Your task to perform on an android device: Open Yahoo.com Image 0: 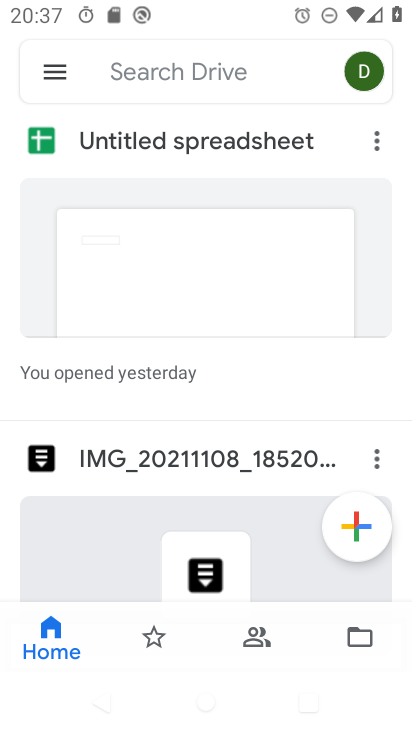
Step 0: press home button
Your task to perform on an android device: Open Yahoo.com Image 1: 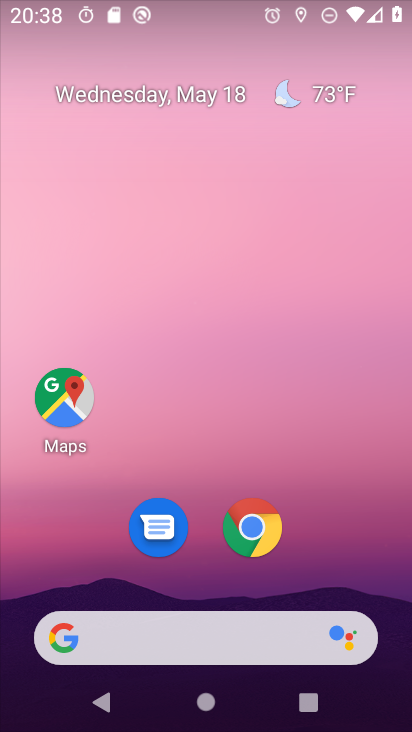
Step 1: click (251, 518)
Your task to perform on an android device: Open Yahoo.com Image 2: 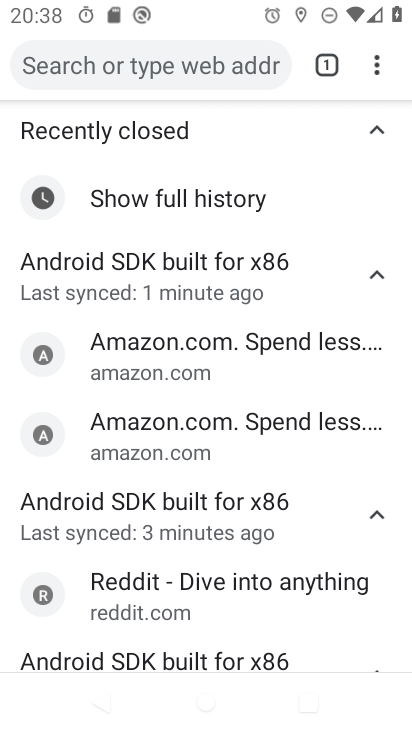
Step 2: click (259, 73)
Your task to perform on an android device: Open Yahoo.com Image 3: 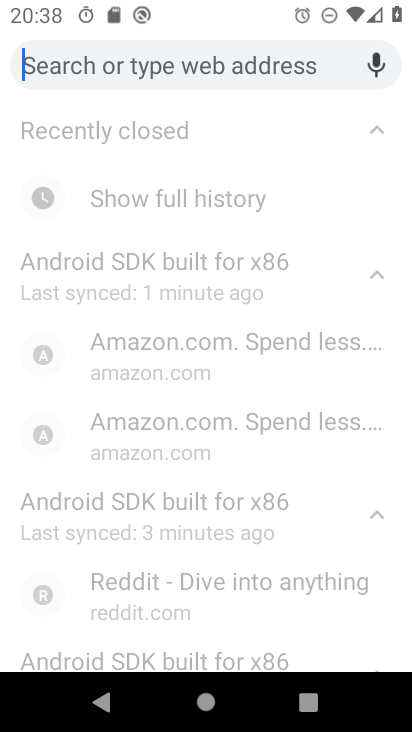
Step 3: type "Yahoo.com"
Your task to perform on an android device: Open Yahoo.com Image 4: 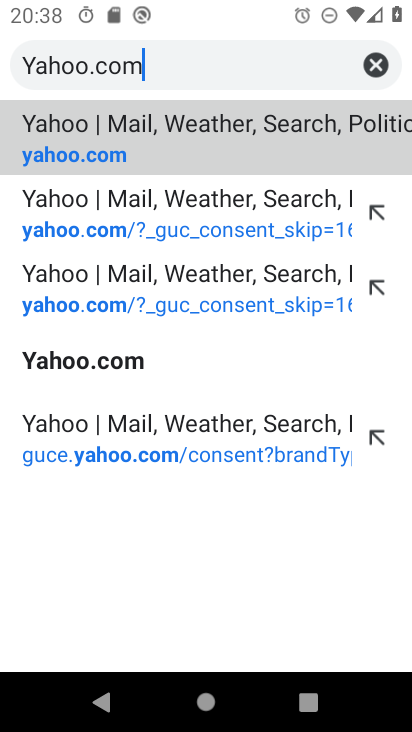
Step 4: click (115, 361)
Your task to perform on an android device: Open Yahoo.com Image 5: 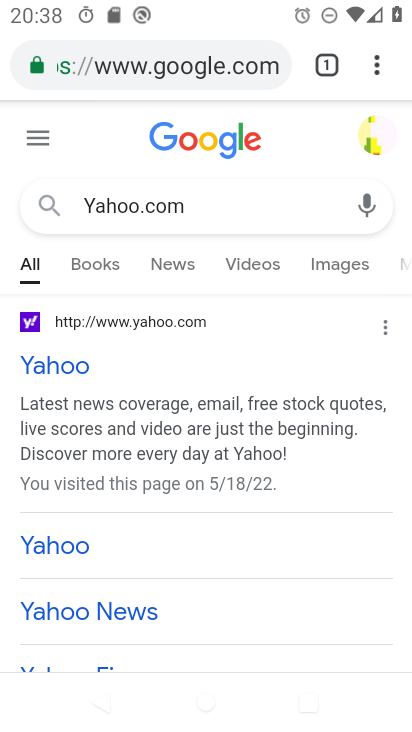
Step 5: task complete